Your task to perform on an android device: Go to wifi settings Image 0: 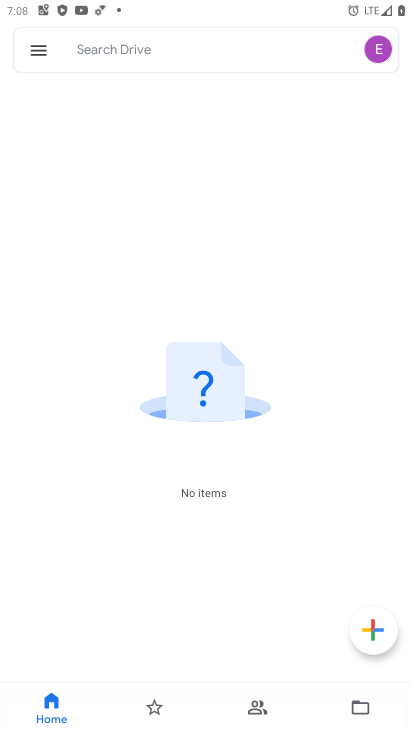
Step 0: press home button
Your task to perform on an android device: Go to wifi settings Image 1: 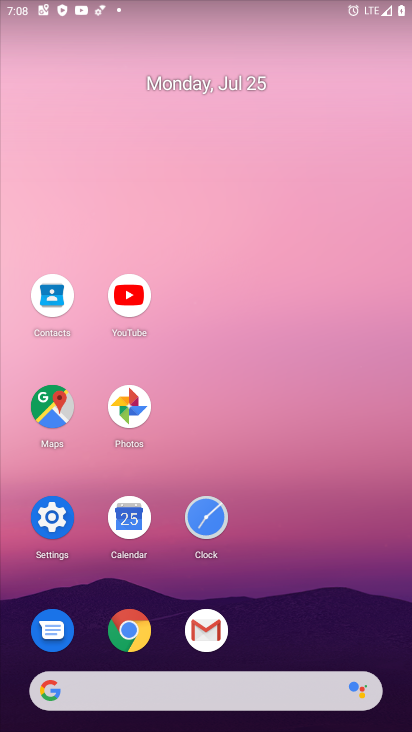
Step 1: click (54, 518)
Your task to perform on an android device: Go to wifi settings Image 2: 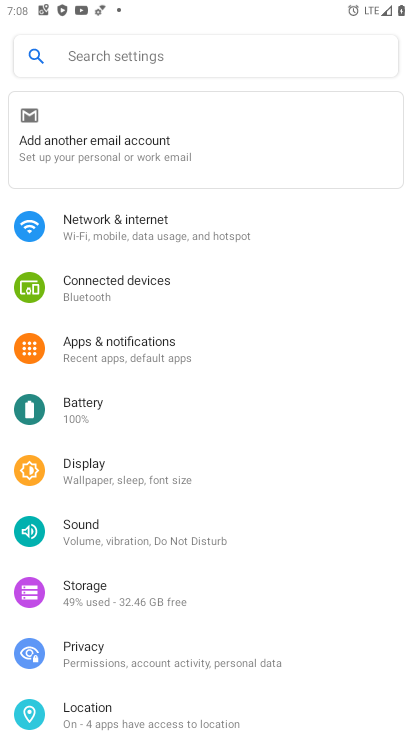
Step 2: click (140, 219)
Your task to perform on an android device: Go to wifi settings Image 3: 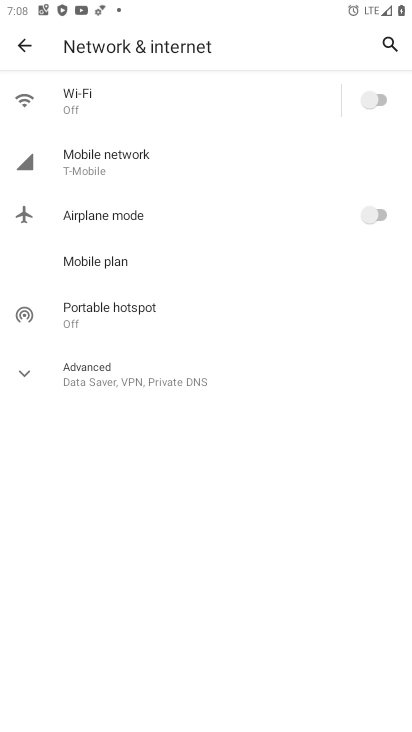
Step 3: click (101, 95)
Your task to perform on an android device: Go to wifi settings Image 4: 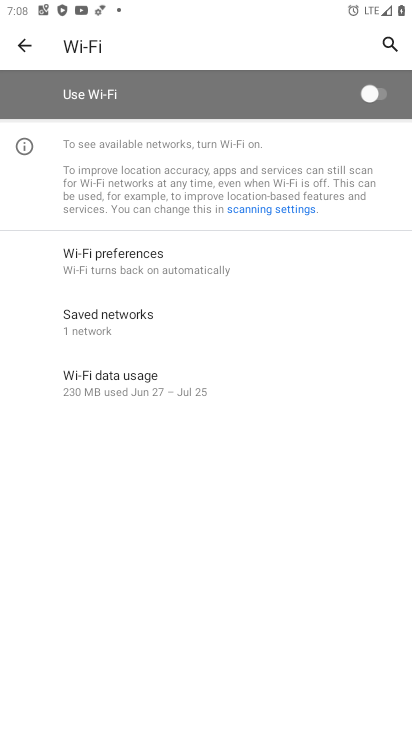
Step 4: task complete